Your task to perform on an android device: turn on the 24-hour format for clock Image 0: 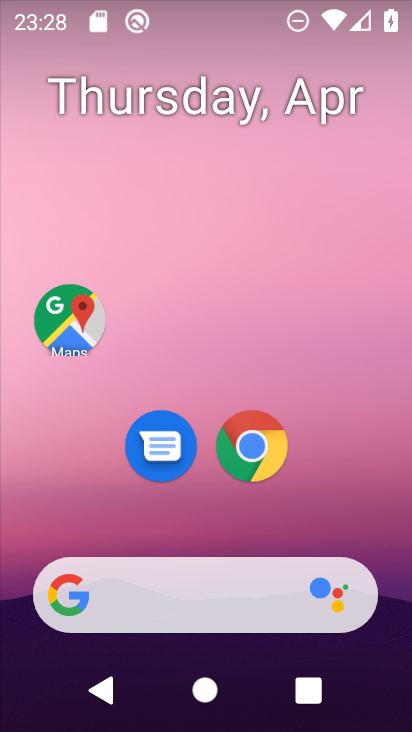
Step 0: drag from (215, 531) to (234, 88)
Your task to perform on an android device: turn on the 24-hour format for clock Image 1: 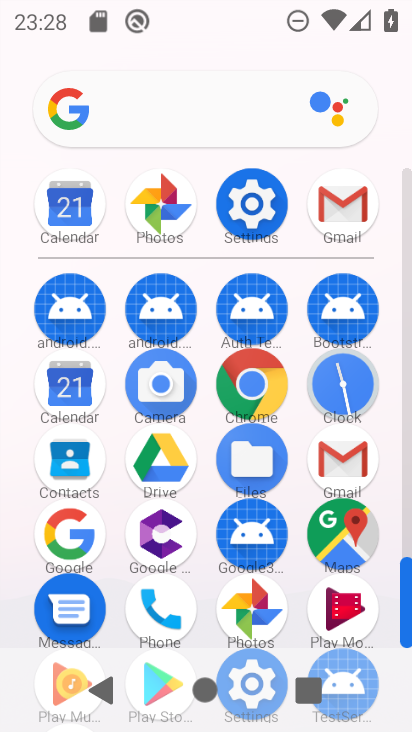
Step 1: click (350, 369)
Your task to perform on an android device: turn on the 24-hour format for clock Image 2: 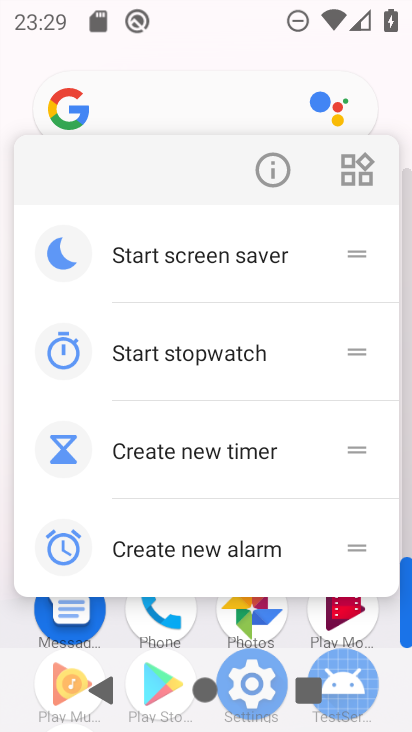
Step 2: drag from (166, 478) to (250, 206)
Your task to perform on an android device: turn on the 24-hour format for clock Image 3: 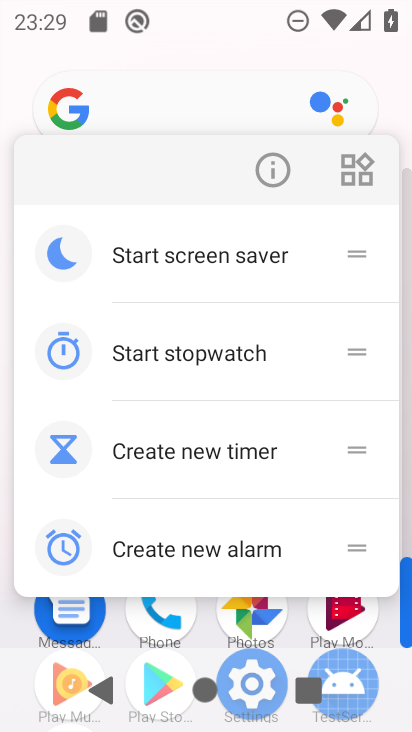
Step 3: click (264, 171)
Your task to perform on an android device: turn on the 24-hour format for clock Image 4: 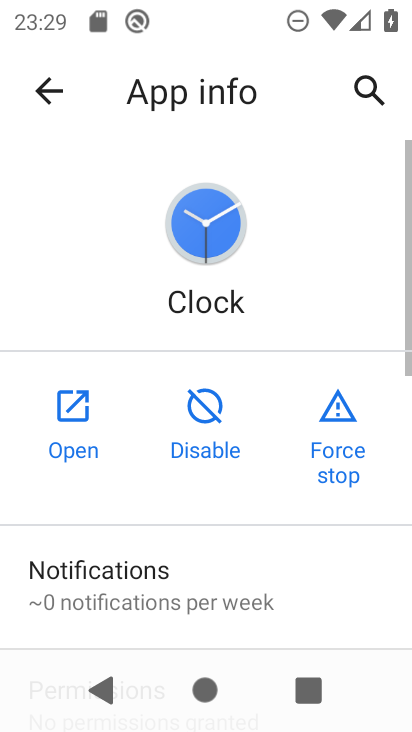
Step 4: click (70, 418)
Your task to perform on an android device: turn on the 24-hour format for clock Image 5: 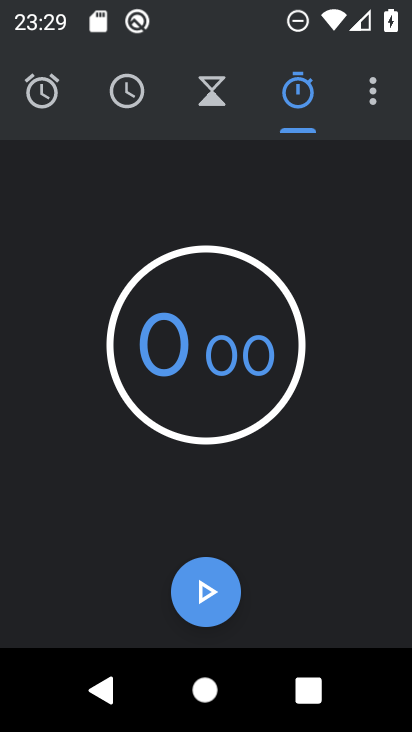
Step 5: click (373, 96)
Your task to perform on an android device: turn on the 24-hour format for clock Image 6: 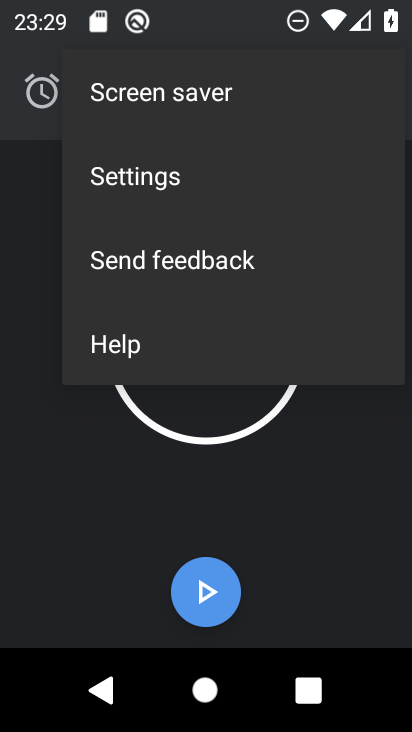
Step 6: click (178, 202)
Your task to perform on an android device: turn on the 24-hour format for clock Image 7: 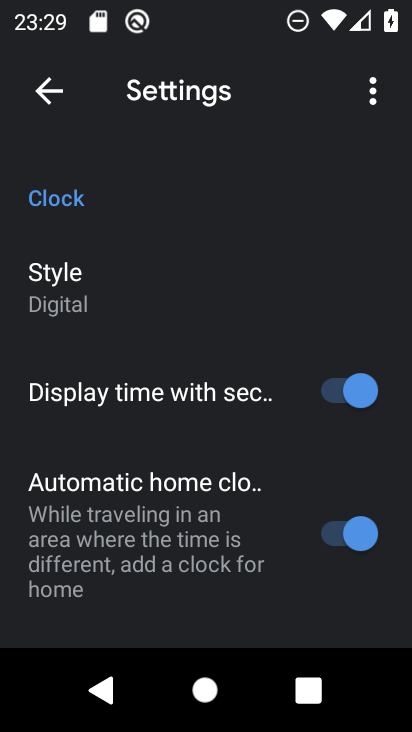
Step 7: drag from (221, 572) to (263, 126)
Your task to perform on an android device: turn on the 24-hour format for clock Image 8: 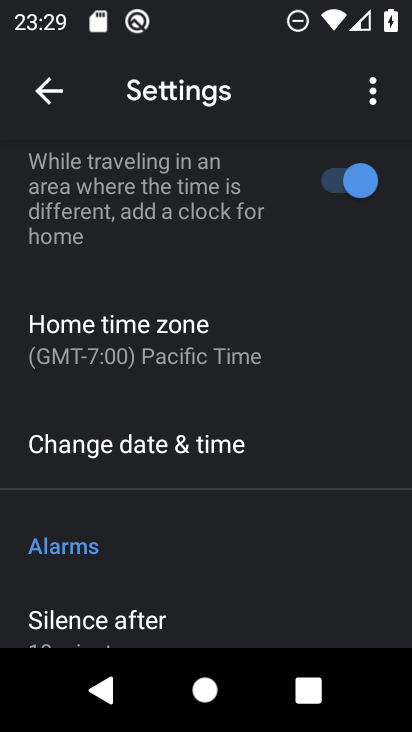
Step 8: click (142, 462)
Your task to perform on an android device: turn on the 24-hour format for clock Image 9: 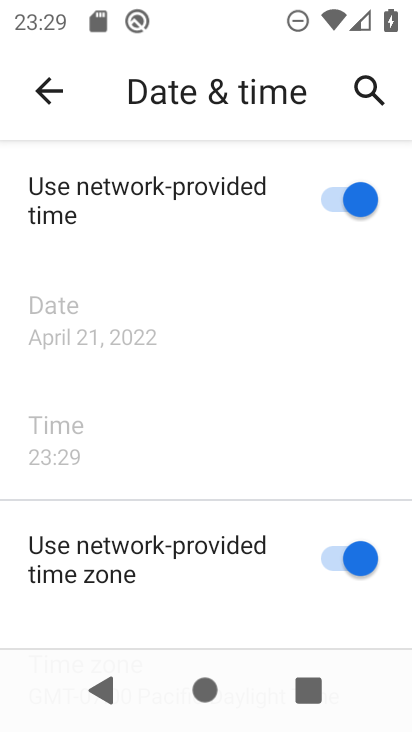
Step 9: task complete